Your task to perform on an android device: toggle priority inbox in the gmail app Image 0: 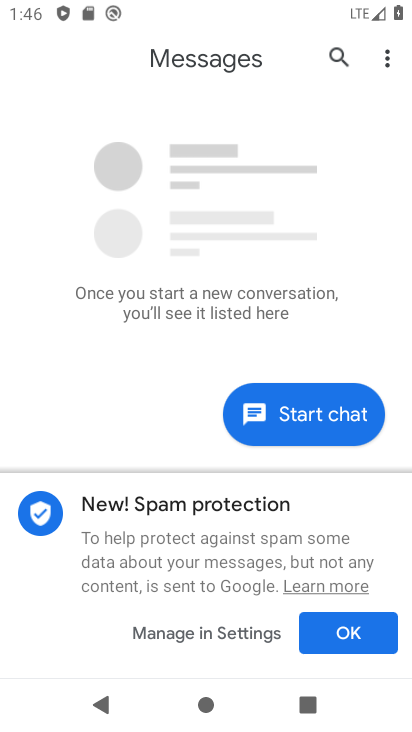
Step 0: press home button
Your task to perform on an android device: toggle priority inbox in the gmail app Image 1: 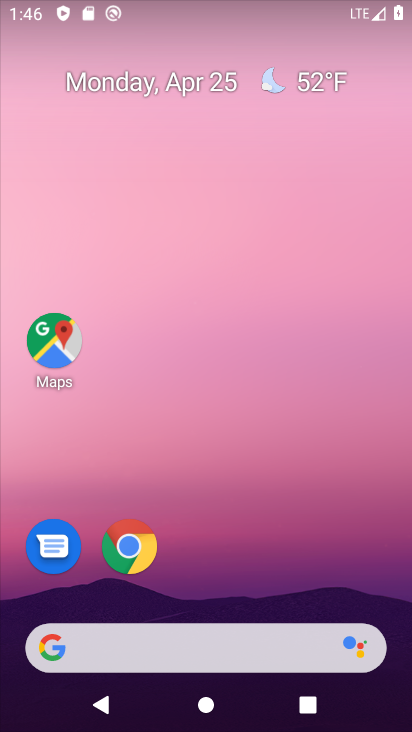
Step 1: drag from (153, 647) to (161, 4)
Your task to perform on an android device: toggle priority inbox in the gmail app Image 2: 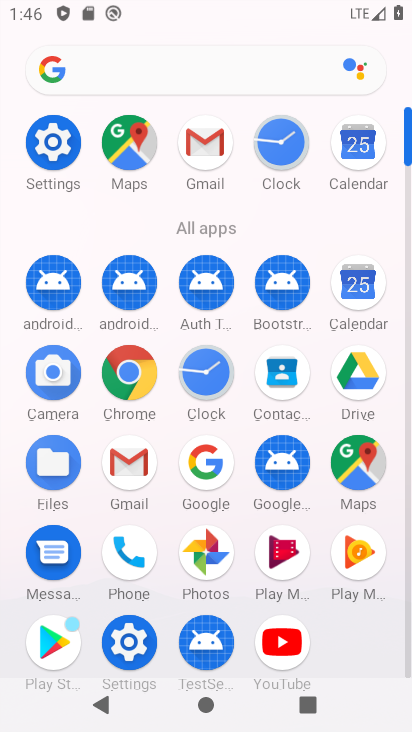
Step 2: click (124, 450)
Your task to perform on an android device: toggle priority inbox in the gmail app Image 3: 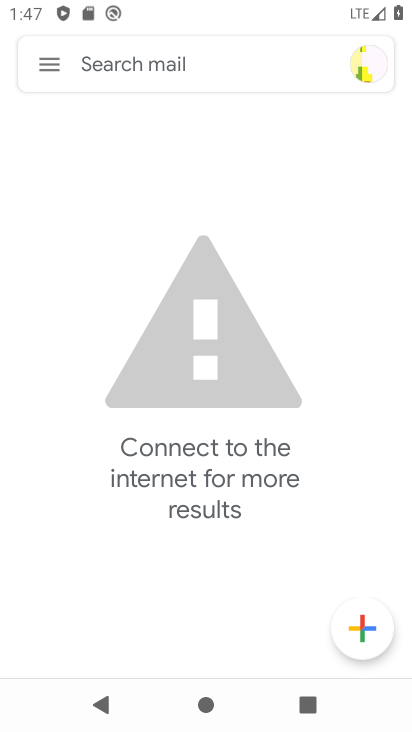
Step 3: click (46, 63)
Your task to perform on an android device: toggle priority inbox in the gmail app Image 4: 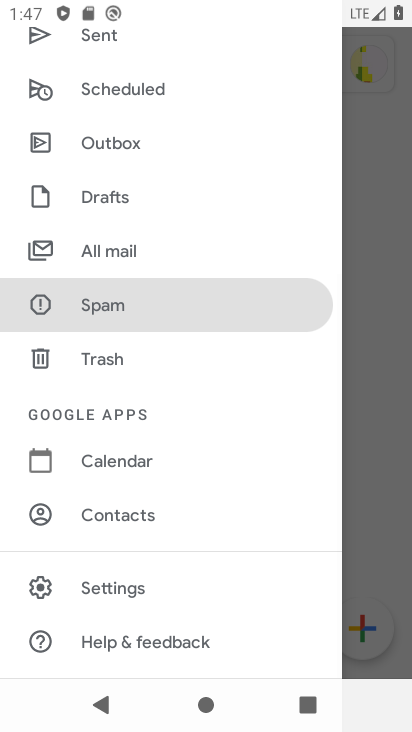
Step 4: click (137, 595)
Your task to perform on an android device: toggle priority inbox in the gmail app Image 5: 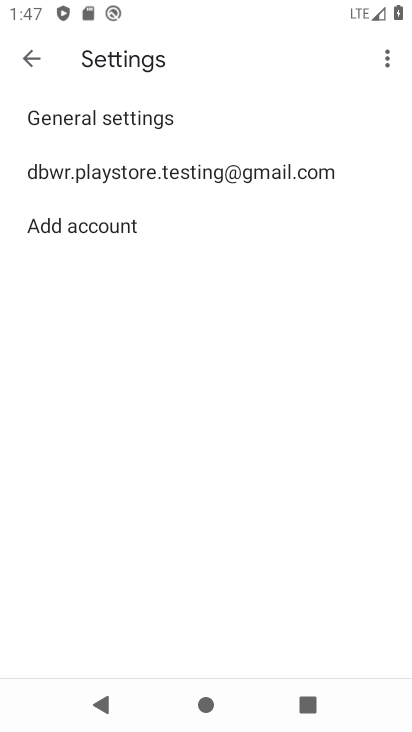
Step 5: click (183, 182)
Your task to perform on an android device: toggle priority inbox in the gmail app Image 6: 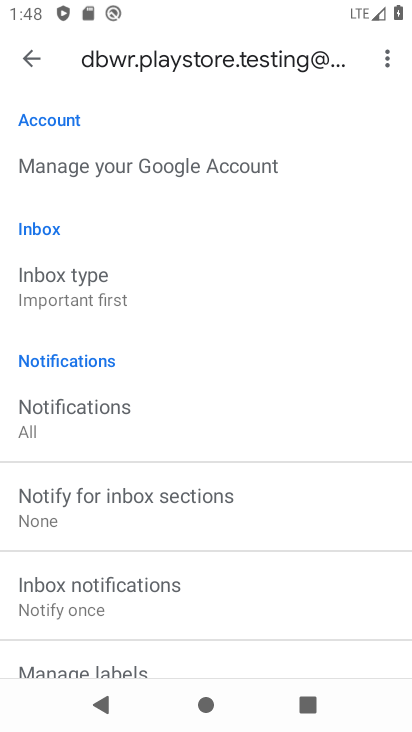
Step 6: click (41, 290)
Your task to perform on an android device: toggle priority inbox in the gmail app Image 7: 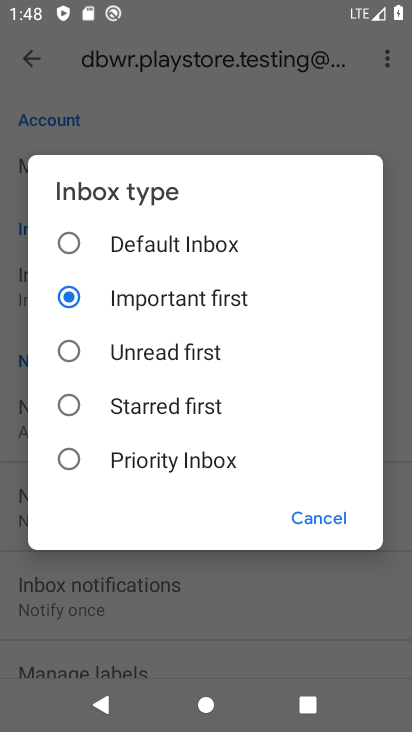
Step 7: click (132, 453)
Your task to perform on an android device: toggle priority inbox in the gmail app Image 8: 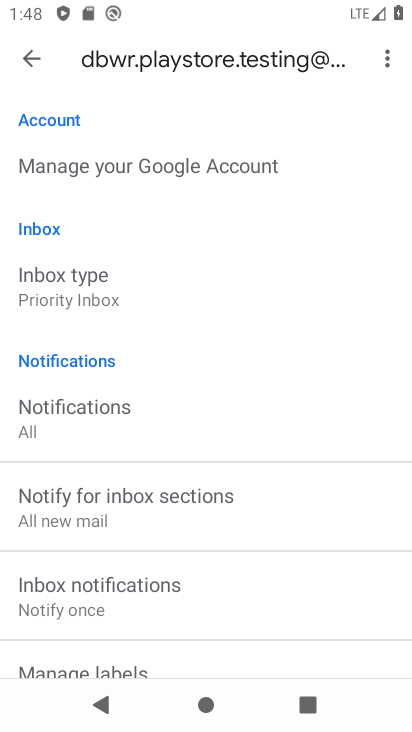
Step 8: task complete